Your task to perform on an android device: show emergency info Image 0: 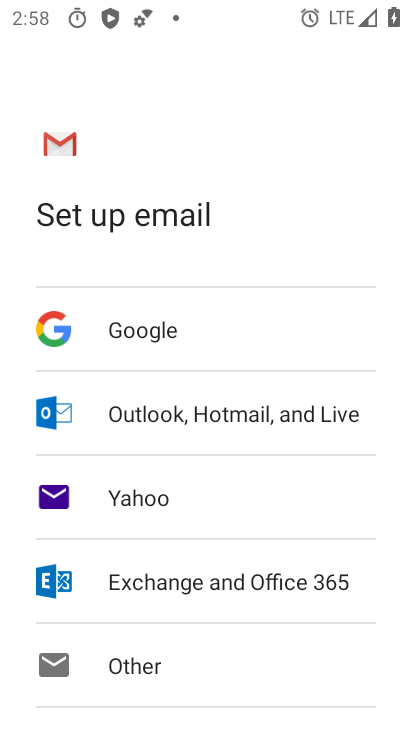
Step 0: press home button
Your task to perform on an android device: show emergency info Image 1: 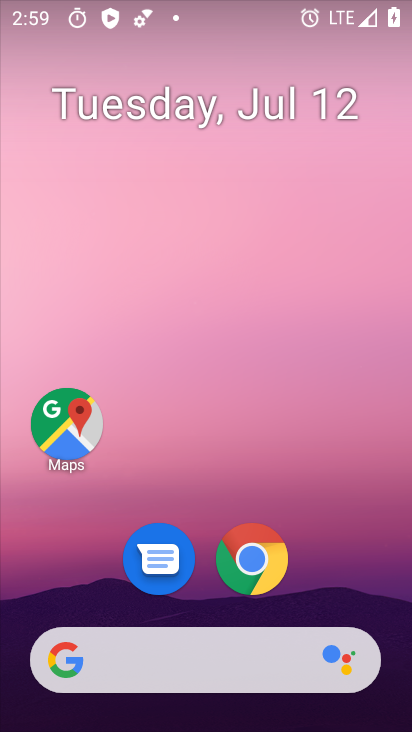
Step 1: drag from (367, 606) to (392, 107)
Your task to perform on an android device: show emergency info Image 2: 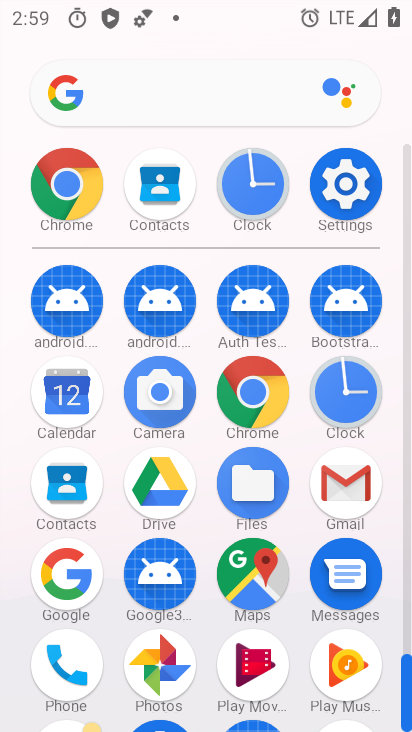
Step 2: click (362, 185)
Your task to perform on an android device: show emergency info Image 3: 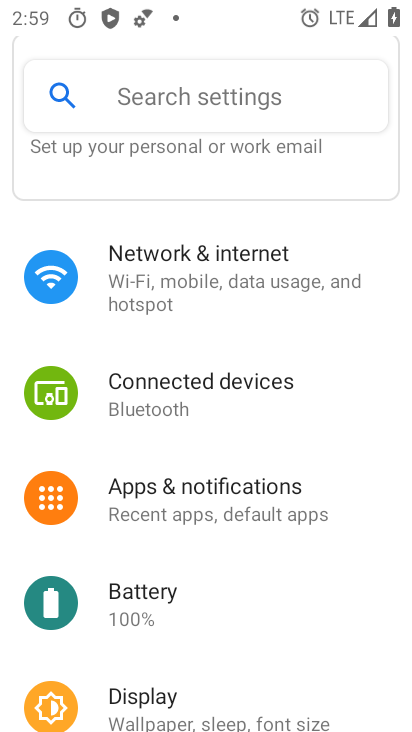
Step 3: drag from (359, 515) to (355, 432)
Your task to perform on an android device: show emergency info Image 4: 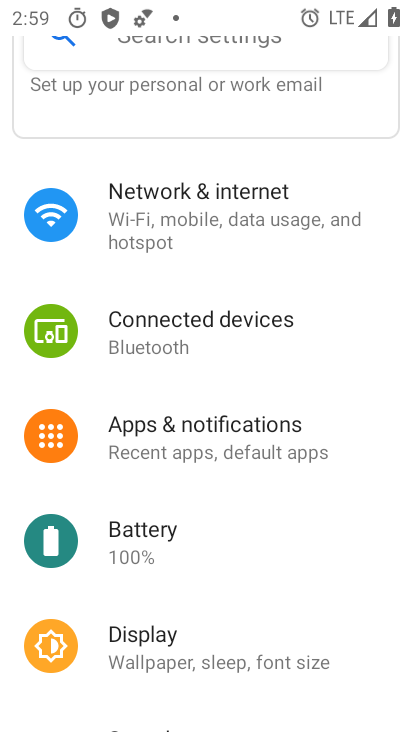
Step 4: drag from (352, 526) to (355, 426)
Your task to perform on an android device: show emergency info Image 5: 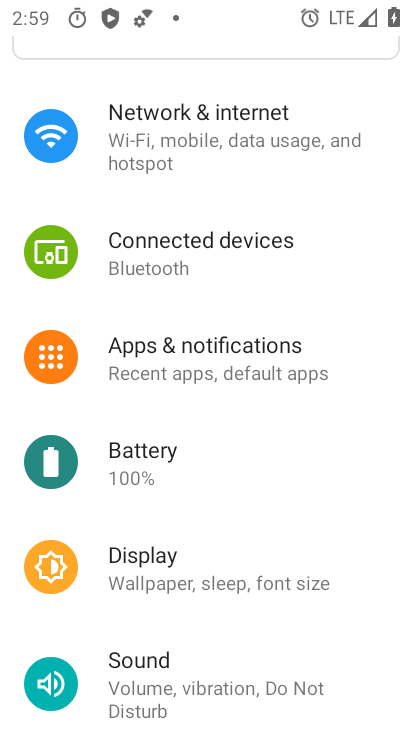
Step 5: drag from (372, 568) to (370, 442)
Your task to perform on an android device: show emergency info Image 6: 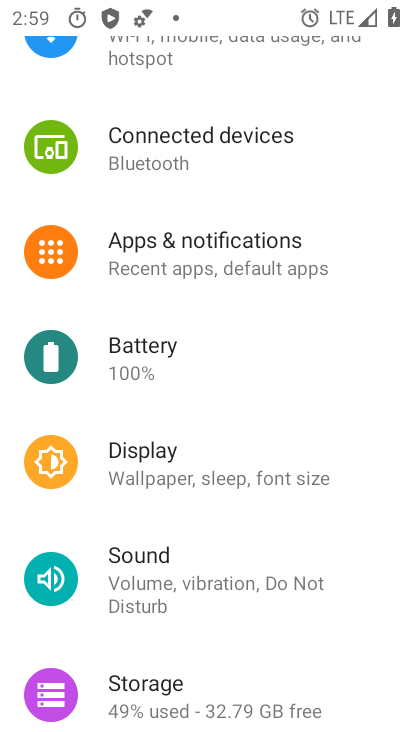
Step 6: drag from (375, 515) to (375, 449)
Your task to perform on an android device: show emergency info Image 7: 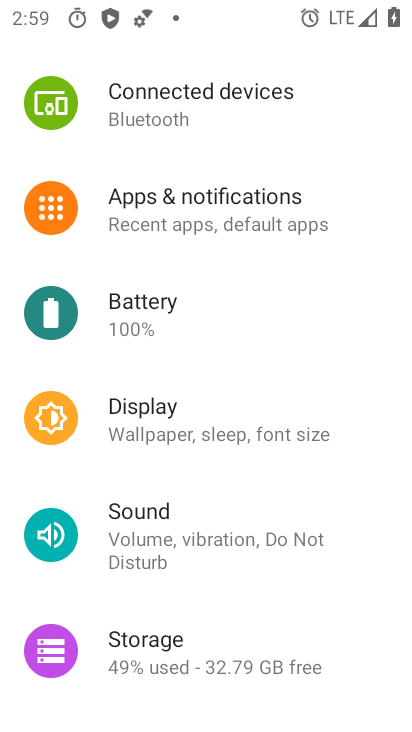
Step 7: drag from (360, 567) to (363, 445)
Your task to perform on an android device: show emergency info Image 8: 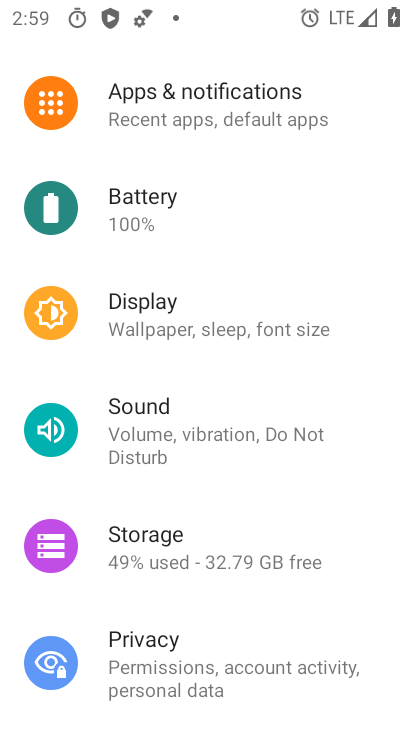
Step 8: drag from (366, 530) to (365, 459)
Your task to perform on an android device: show emergency info Image 9: 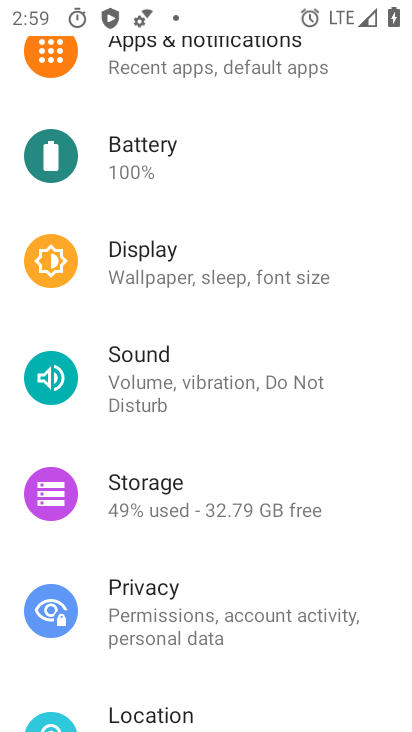
Step 9: drag from (364, 548) to (359, 443)
Your task to perform on an android device: show emergency info Image 10: 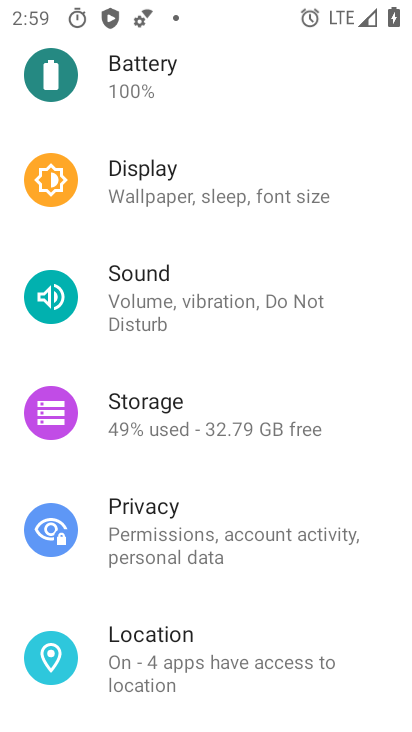
Step 10: drag from (359, 589) to (361, 493)
Your task to perform on an android device: show emergency info Image 11: 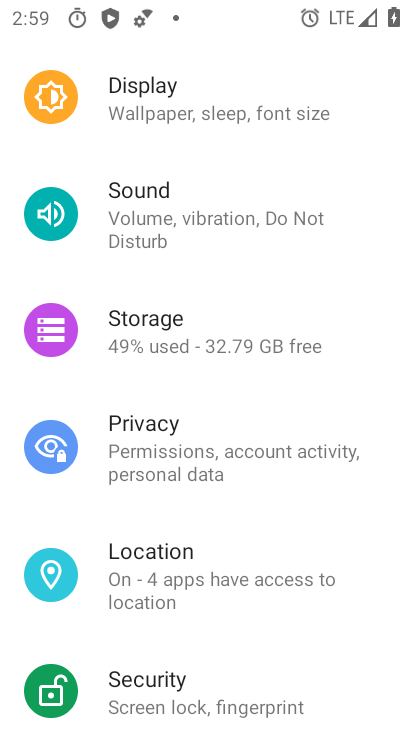
Step 11: drag from (368, 589) to (369, 483)
Your task to perform on an android device: show emergency info Image 12: 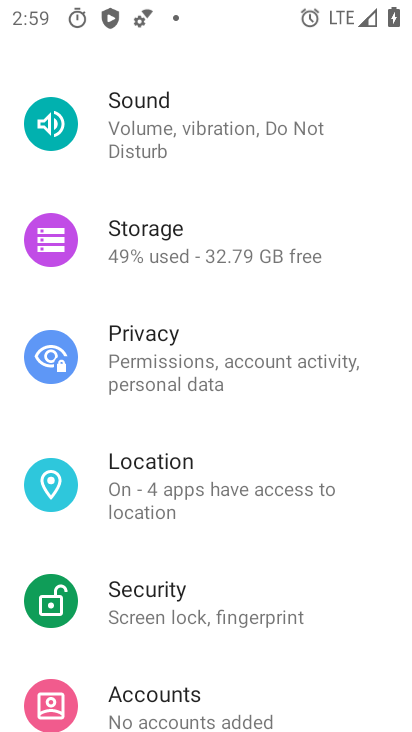
Step 12: drag from (371, 586) to (367, 486)
Your task to perform on an android device: show emergency info Image 13: 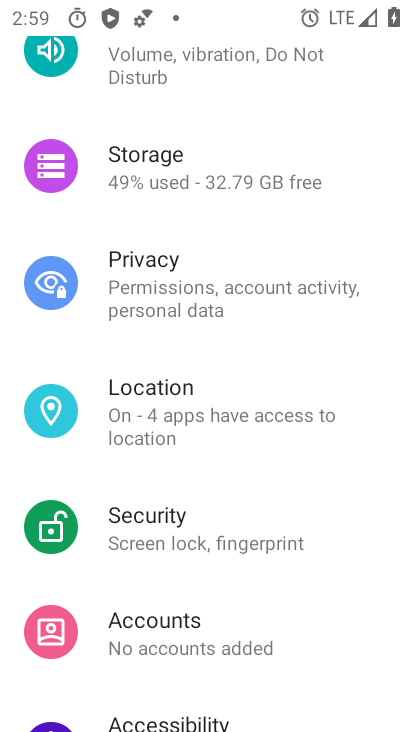
Step 13: drag from (367, 588) to (365, 478)
Your task to perform on an android device: show emergency info Image 14: 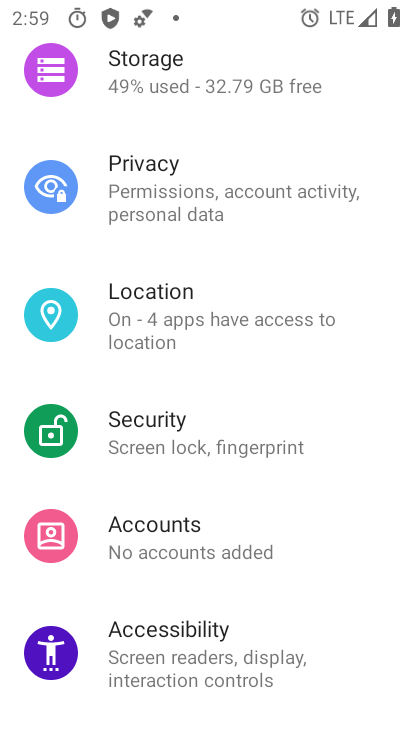
Step 14: drag from (375, 624) to (377, 510)
Your task to perform on an android device: show emergency info Image 15: 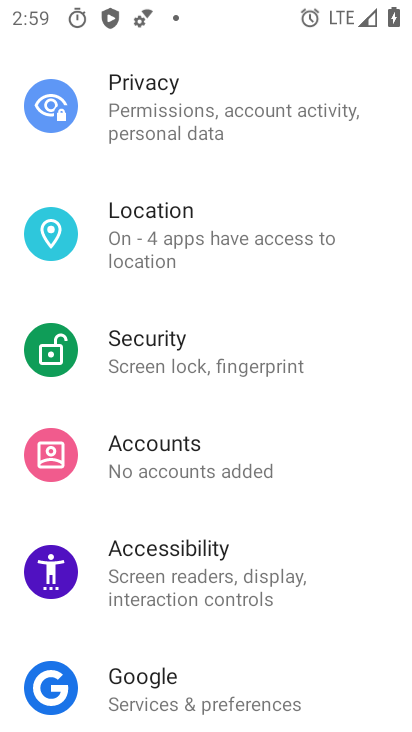
Step 15: drag from (360, 639) to (357, 520)
Your task to perform on an android device: show emergency info Image 16: 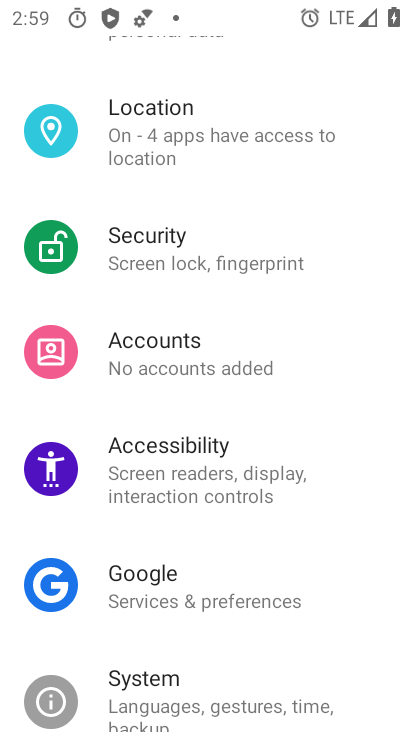
Step 16: drag from (364, 647) to (370, 441)
Your task to perform on an android device: show emergency info Image 17: 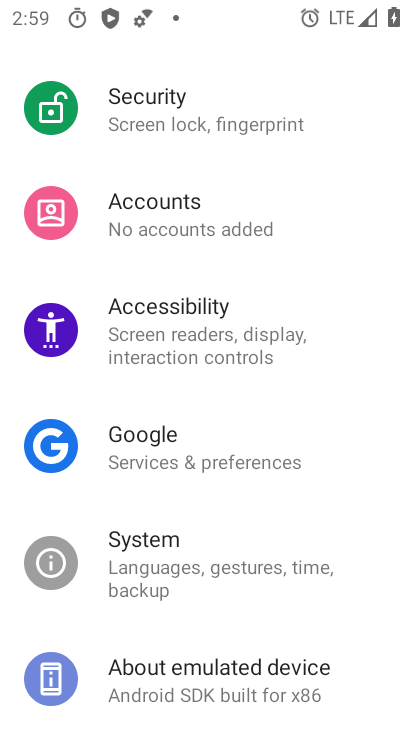
Step 17: click (340, 688)
Your task to perform on an android device: show emergency info Image 18: 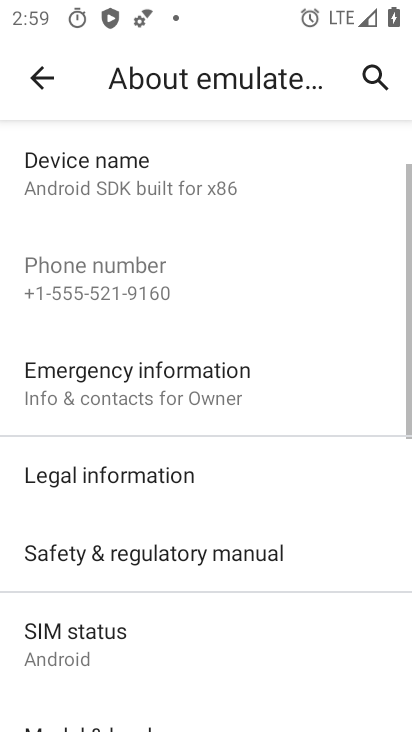
Step 18: click (265, 411)
Your task to perform on an android device: show emergency info Image 19: 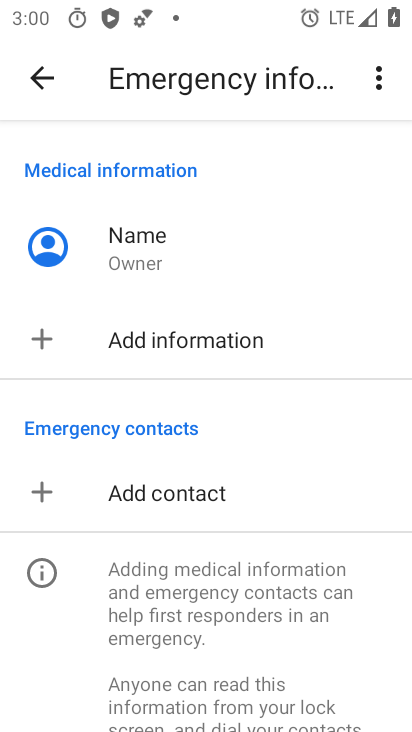
Step 19: task complete